Your task to perform on an android device: Go to CNN.com Image 0: 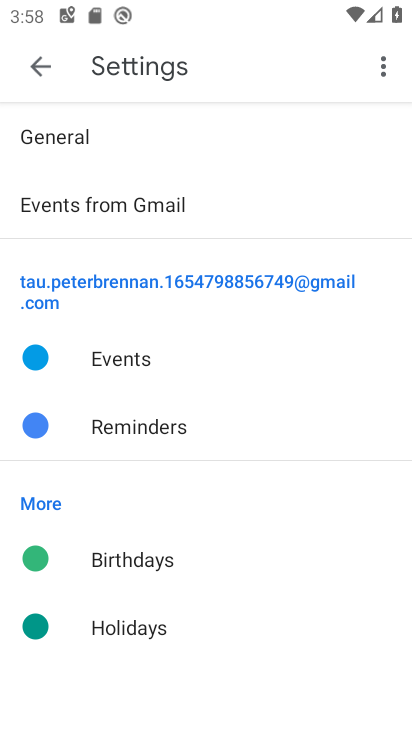
Step 0: press home button
Your task to perform on an android device: Go to CNN.com Image 1: 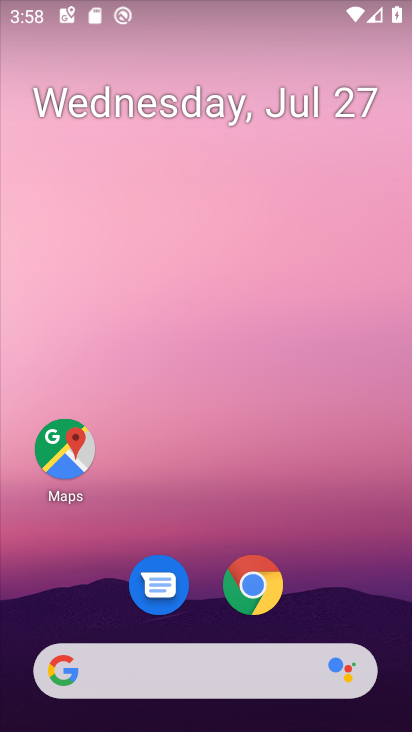
Step 1: click (236, 682)
Your task to perform on an android device: Go to CNN.com Image 2: 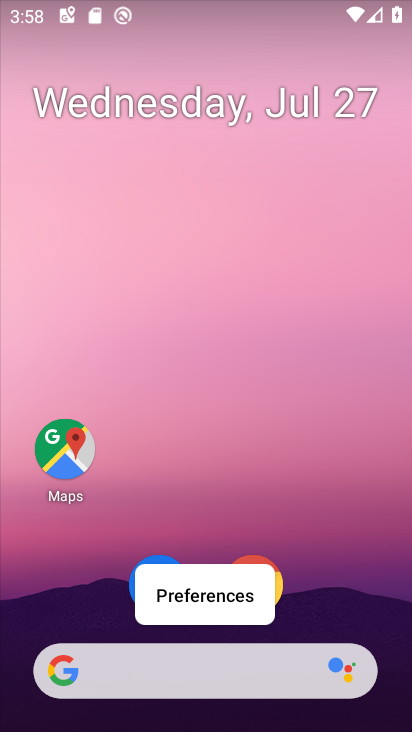
Step 2: click (236, 682)
Your task to perform on an android device: Go to CNN.com Image 3: 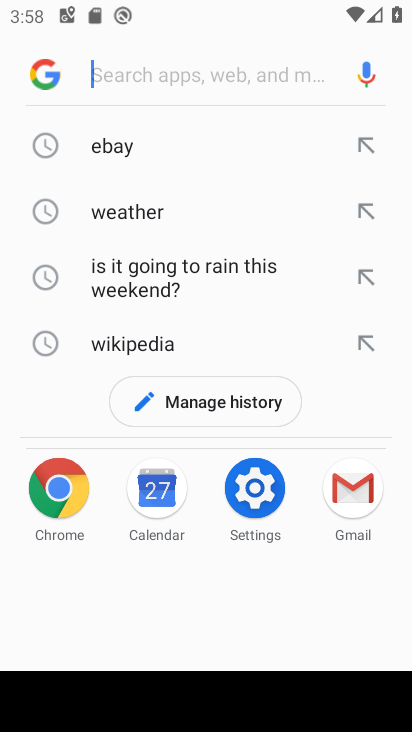
Step 3: type "cnn.com"
Your task to perform on an android device: Go to CNN.com Image 4: 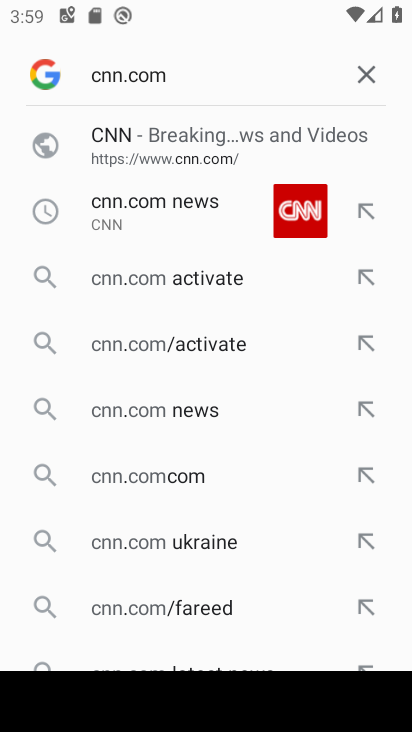
Step 4: click (199, 150)
Your task to perform on an android device: Go to CNN.com Image 5: 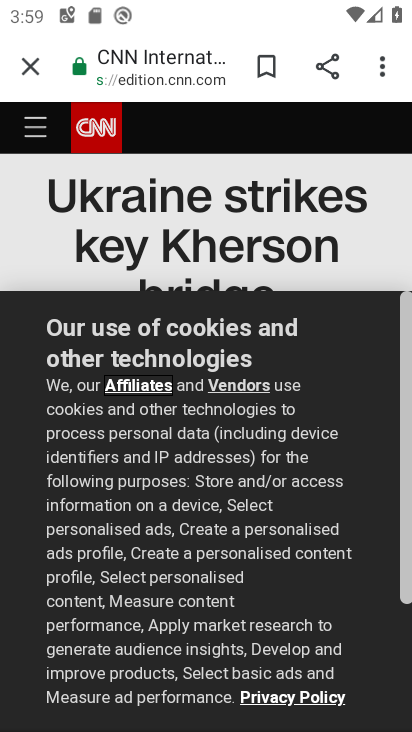
Step 5: task complete